Your task to perform on an android device: turn on sleep mode Image 0: 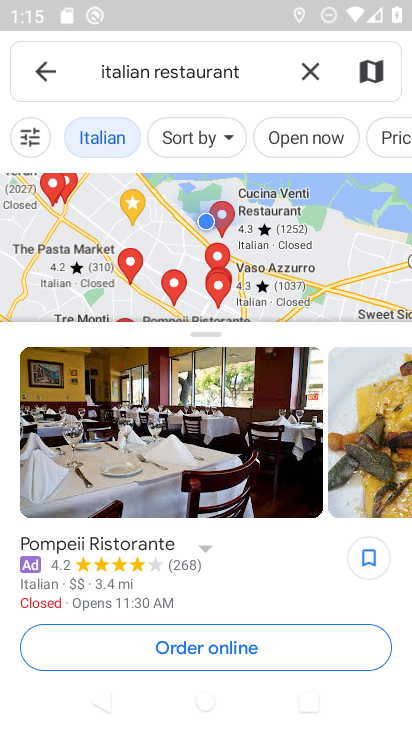
Step 0: press home button
Your task to perform on an android device: turn on sleep mode Image 1: 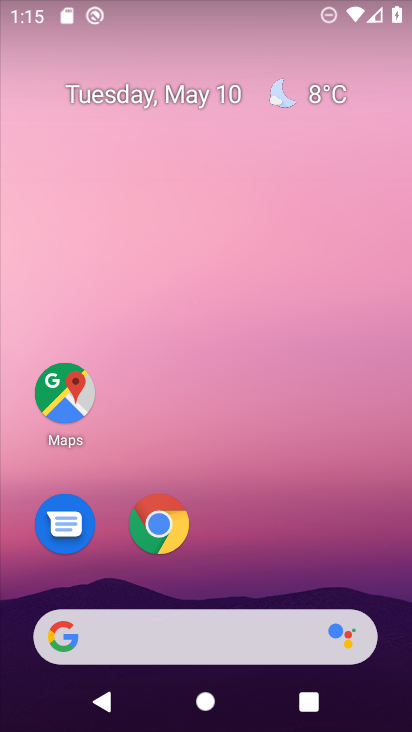
Step 1: drag from (243, 512) to (204, 36)
Your task to perform on an android device: turn on sleep mode Image 2: 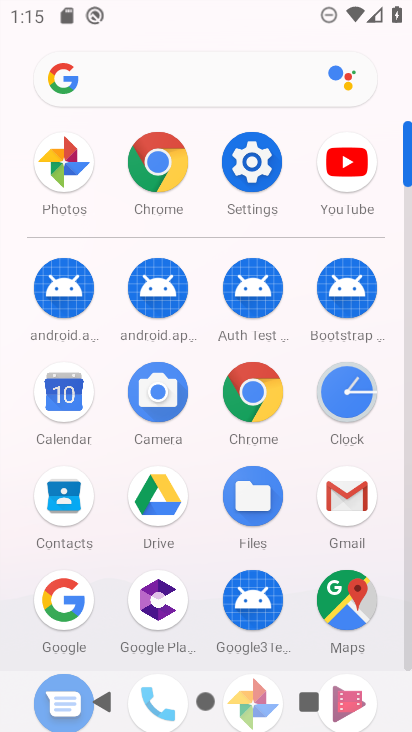
Step 2: click (249, 165)
Your task to perform on an android device: turn on sleep mode Image 3: 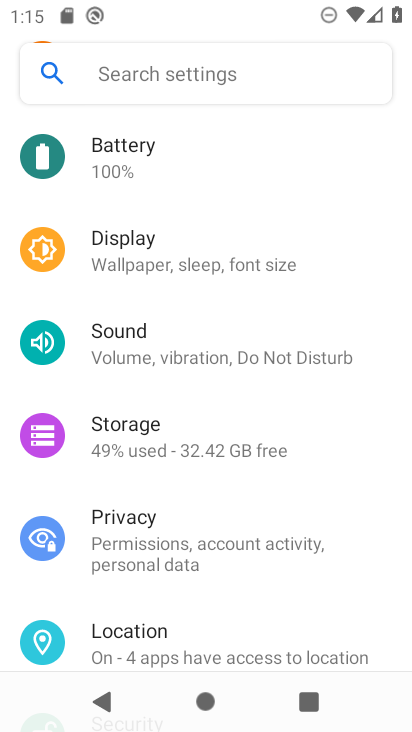
Step 3: click (210, 341)
Your task to perform on an android device: turn on sleep mode Image 4: 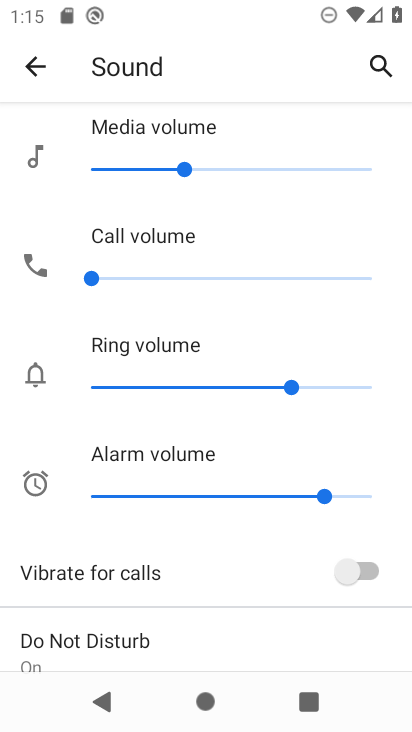
Step 4: click (37, 61)
Your task to perform on an android device: turn on sleep mode Image 5: 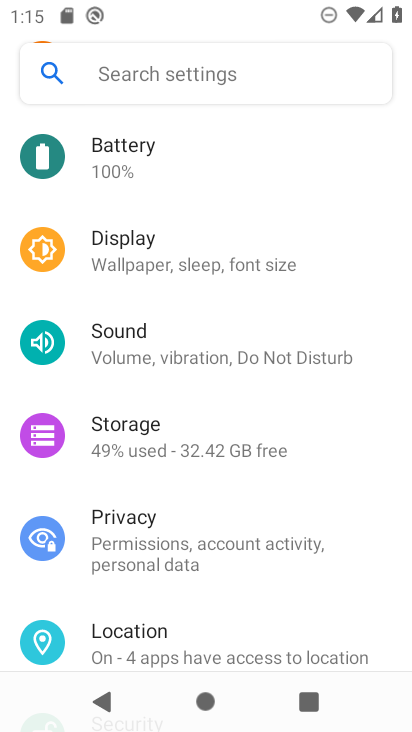
Step 5: click (234, 261)
Your task to perform on an android device: turn on sleep mode Image 6: 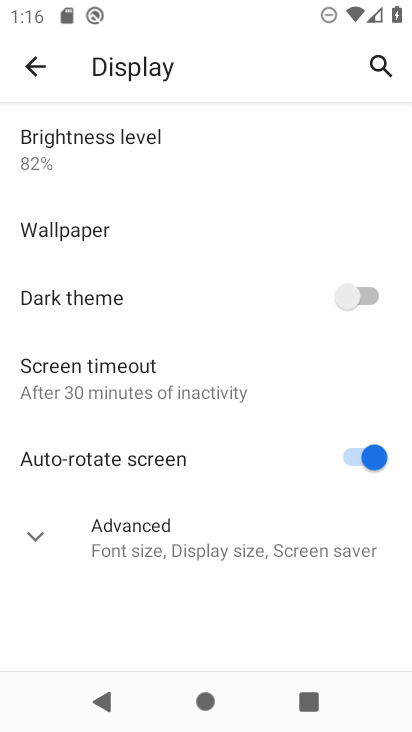
Step 6: click (36, 529)
Your task to perform on an android device: turn on sleep mode Image 7: 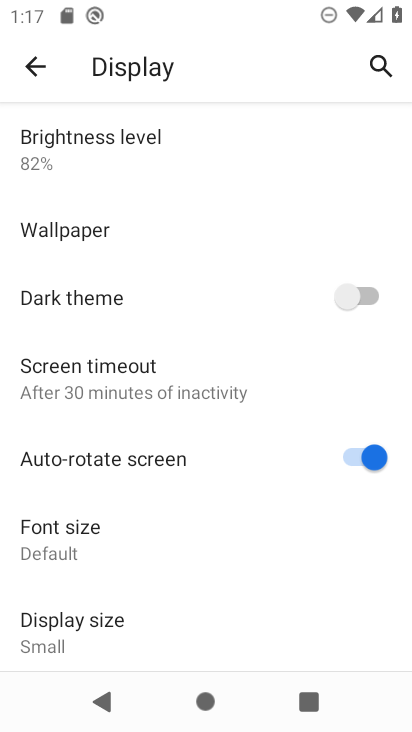
Step 7: task complete